Your task to perform on an android device: toggle data saver in the chrome app Image 0: 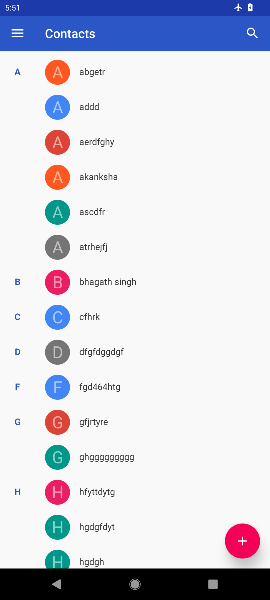
Step 0: press home button
Your task to perform on an android device: toggle data saver in the chrome app Image 1: 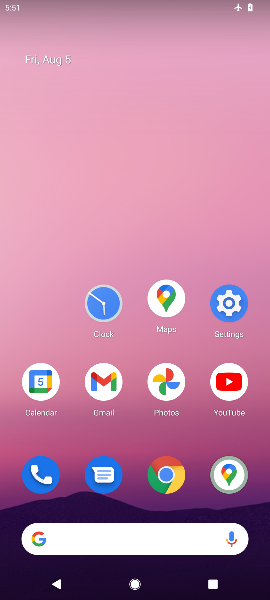
Step 1: click (154, 466)
Your task to perform on an android device: toggle data saver in the chrome app Image 2: 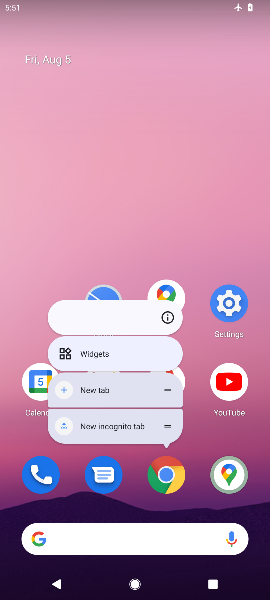
Step 2: click (163, 477)
Your task to perform on an android device: toggle data saver in the chrome app Image 3: 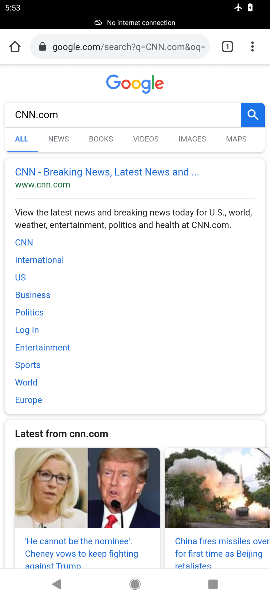
Step 3: click (253, 50)
Your task to perform on an android device: toggle data saver in the chrome app Image 4: 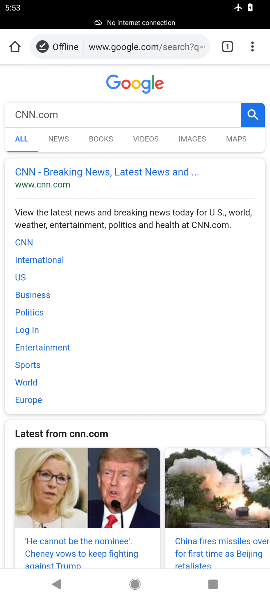
Step 4: click (253, 50)
Your task to perform on an android device: toggle data saver in the chrome app Image 5: 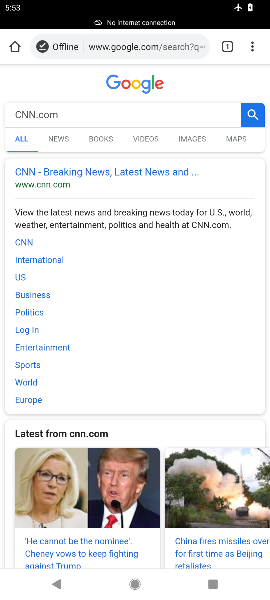
Step 5: click (253, 50)
Your task to perform on an android device: toggle data saver in the chrome app Image 6: 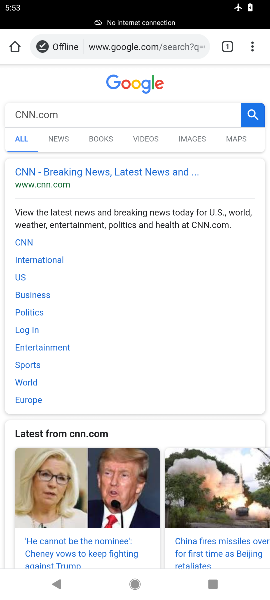
Step 6: click (253, 50)
Your task to perform on an android device: toggle data saver in the chrome app Image 7: 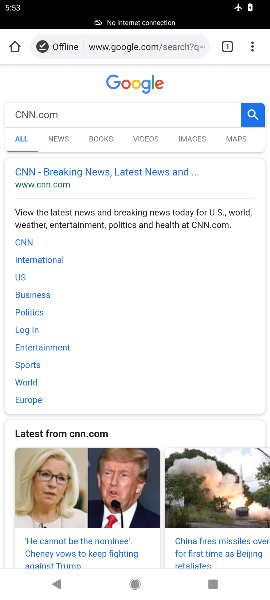
Step 7: click (253, 50)
Your task to perform on an android device: toggle data saver in the chrome app Image 8: 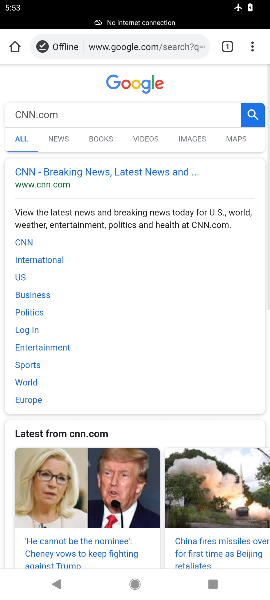
Step 8: click (253, 50)
Your task to perform on an android device: toggle data saver in the chrome app Image 9: 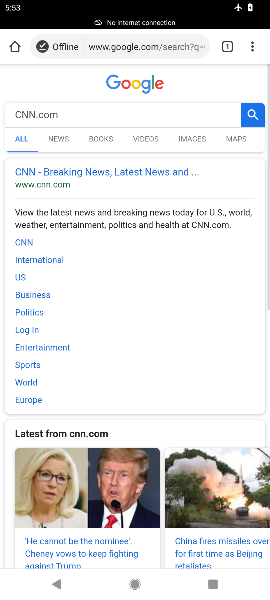
Step 9: click (253, 50)
Your task to perform on an android device: toggle data saver in the chrome app Image 10: 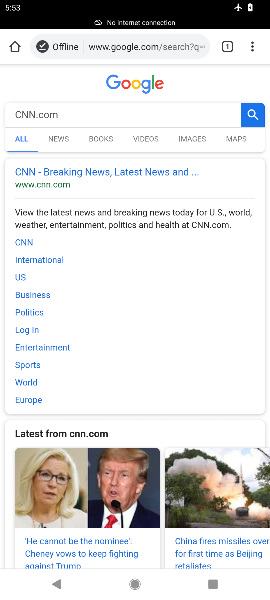
Step 10: task complete